Your task to perform on an android device: Open Yahoo.com Image 0: 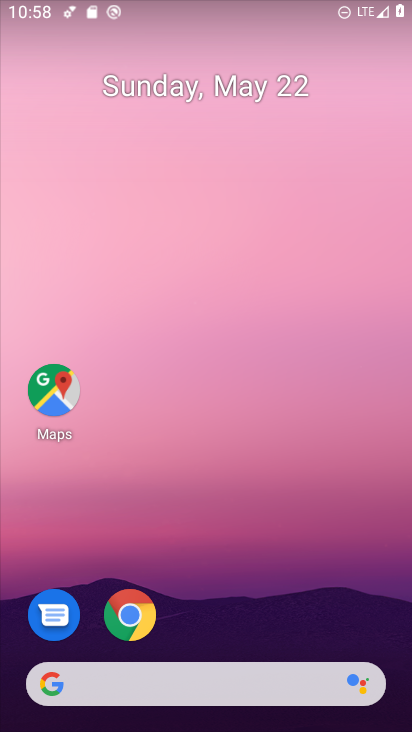
Step 0: click (122, 621)
Your task to perform on an android device: Open Yahoo.com Image 1: 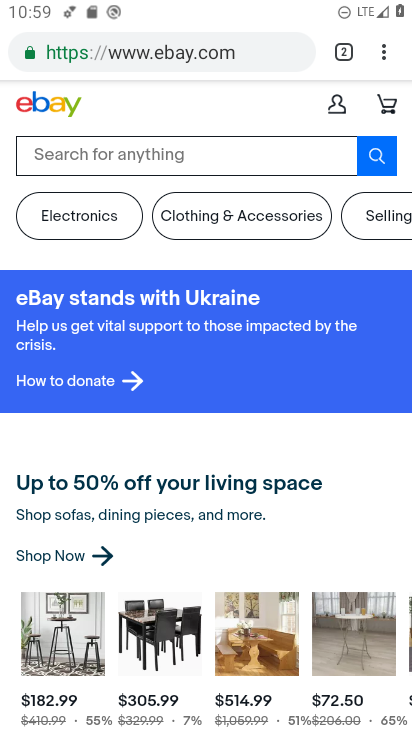
Step 1: click (129, 53)
Your task to perform on an android device: Open Yahoo.com Image 2: 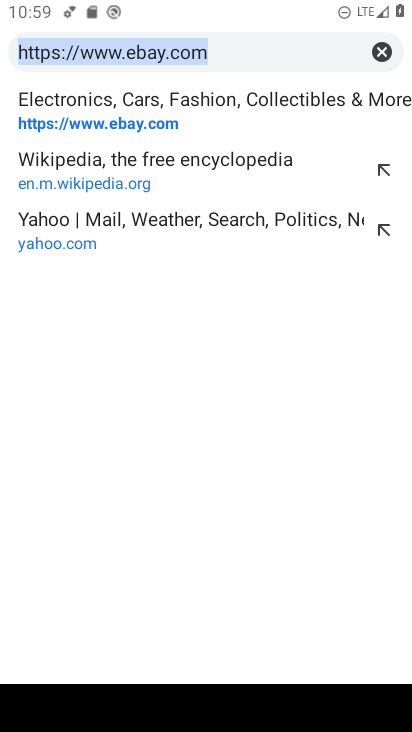
Step 2: click (60, 238)
Your task to perform on an android device: Open Yahoo.com Image 3: 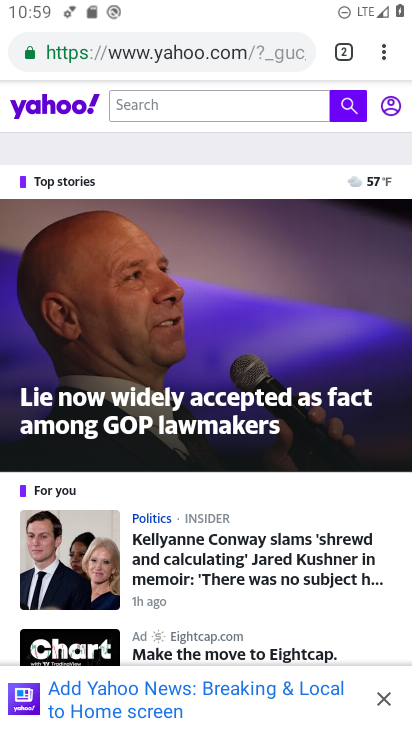
Step 3: task complete